Your task to perform on an android device: Search for bose soundlink mini on bestbuy, select the first entry, add it to the cart, then select checkout. Image 0: 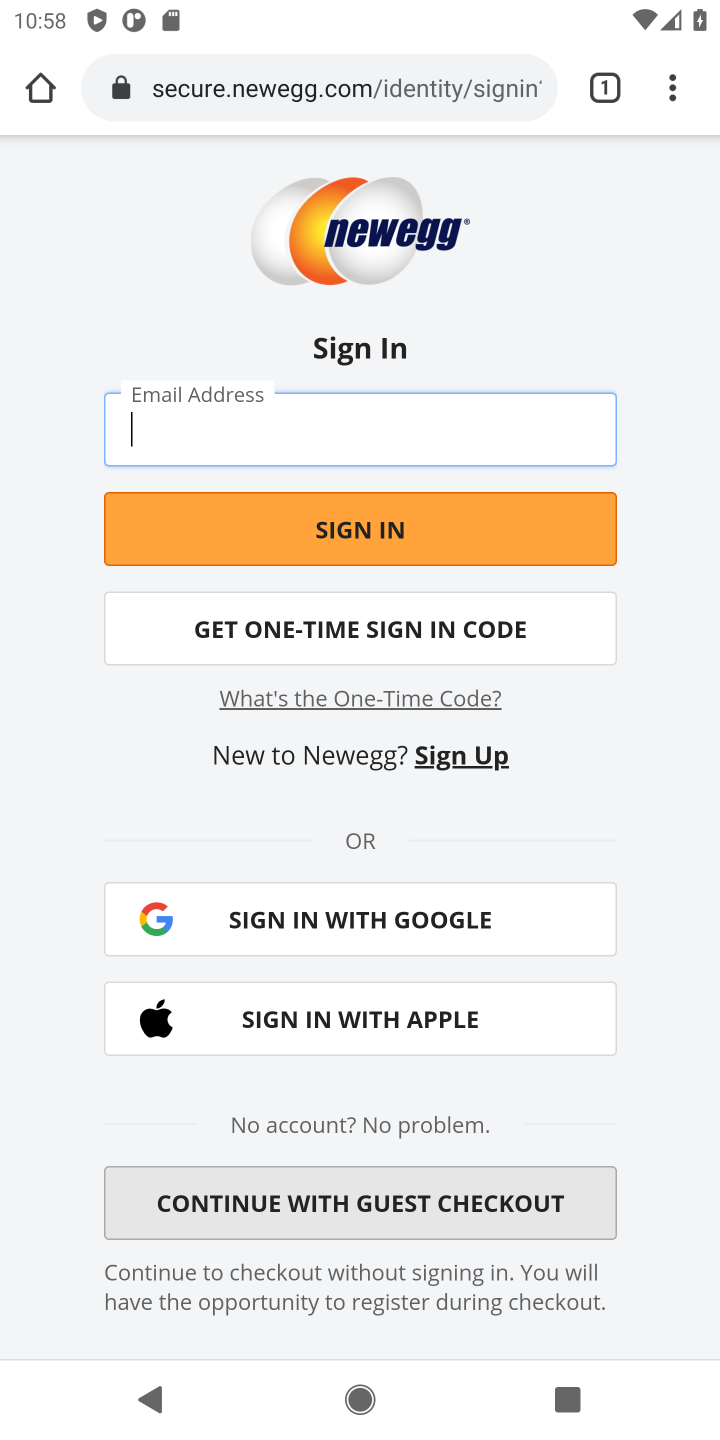
Step 0: task complete